Your task to perform on an android device: turn off translation in the chrome app Image 0: 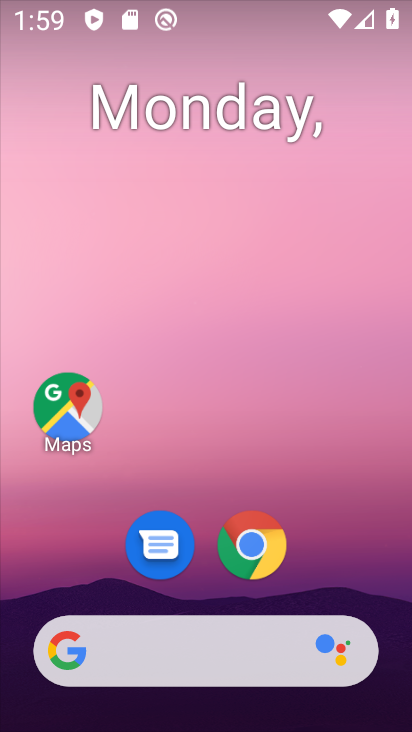
Step 0: click (250, 551)
Your task to perform on an android device: turn off translation in the chrome app Image 1: 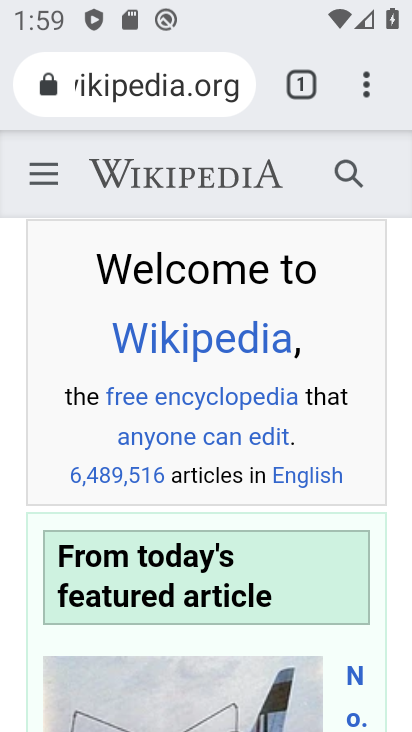
Step 1: drag from (365, 84) to (148, 563)
Your task to perform on an android device: turn off translation in the chrome app Image 2: 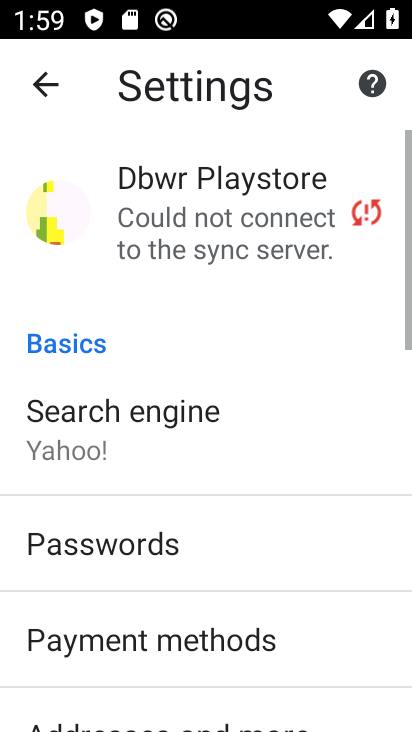
Step 2: drag from (162, 582) to (256, 34)
Your task to perform on an android device: turn off translation in the chrome app Image 3: 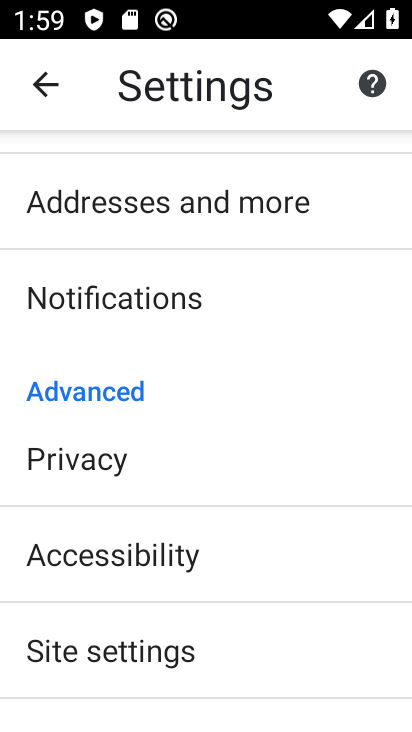
Step 3: drag from (139, 669) to (209, 257)
Your task to perform on an android device: turn off translation in the chrome app Image 4: 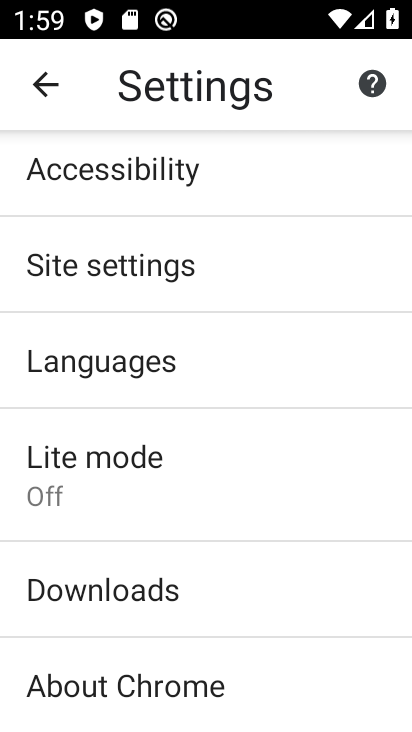
Step 4: click (190, 354)
Your task to perform on an android device: turn off translation in the chrome app Image 5: 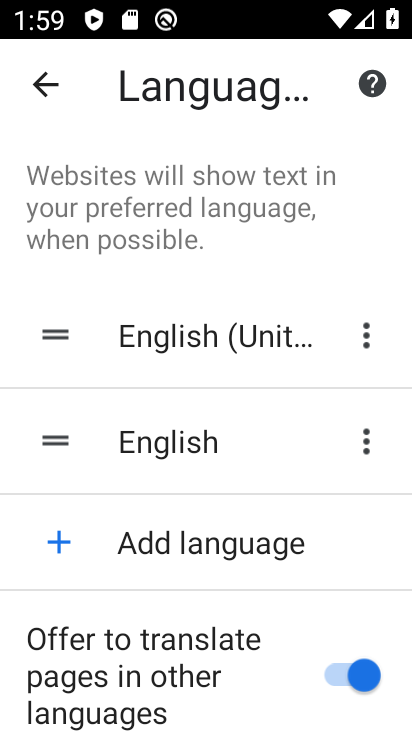
Step 5: click (358, 678)
Your task to perform on an android device: turn off translation in the chrome app Image 6: 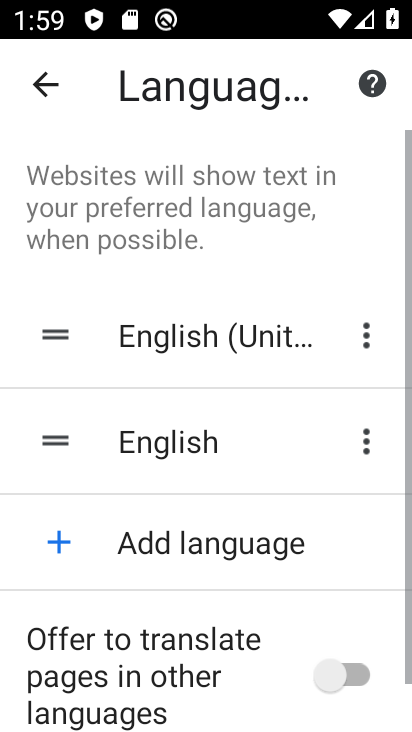
Step 6: task complete